Your task to perform on an android device: turn smart compose on in the gmail app Image 0: 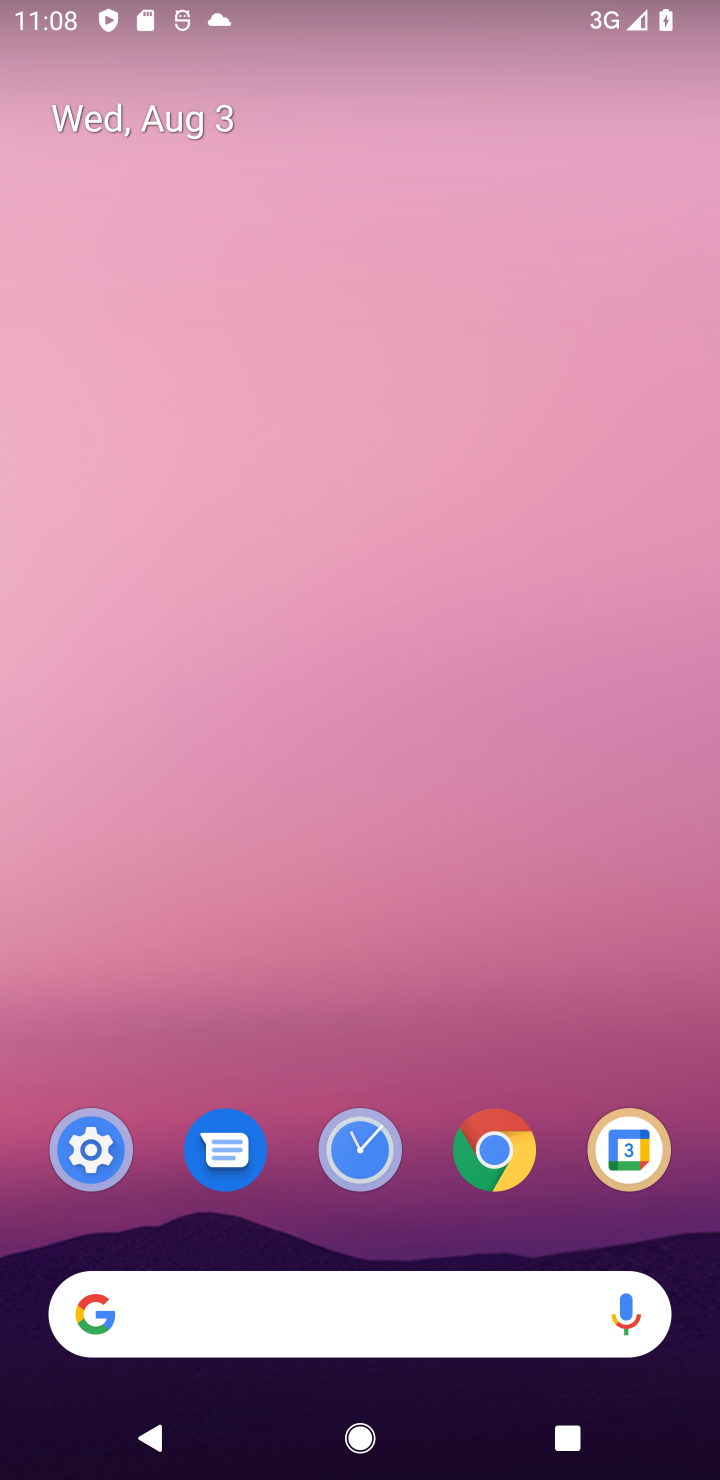
Step 0: drag from (538, 1076) to (494, 287)
Your task to perform on an android device: turn smart compose on in the gmail app Image 1: 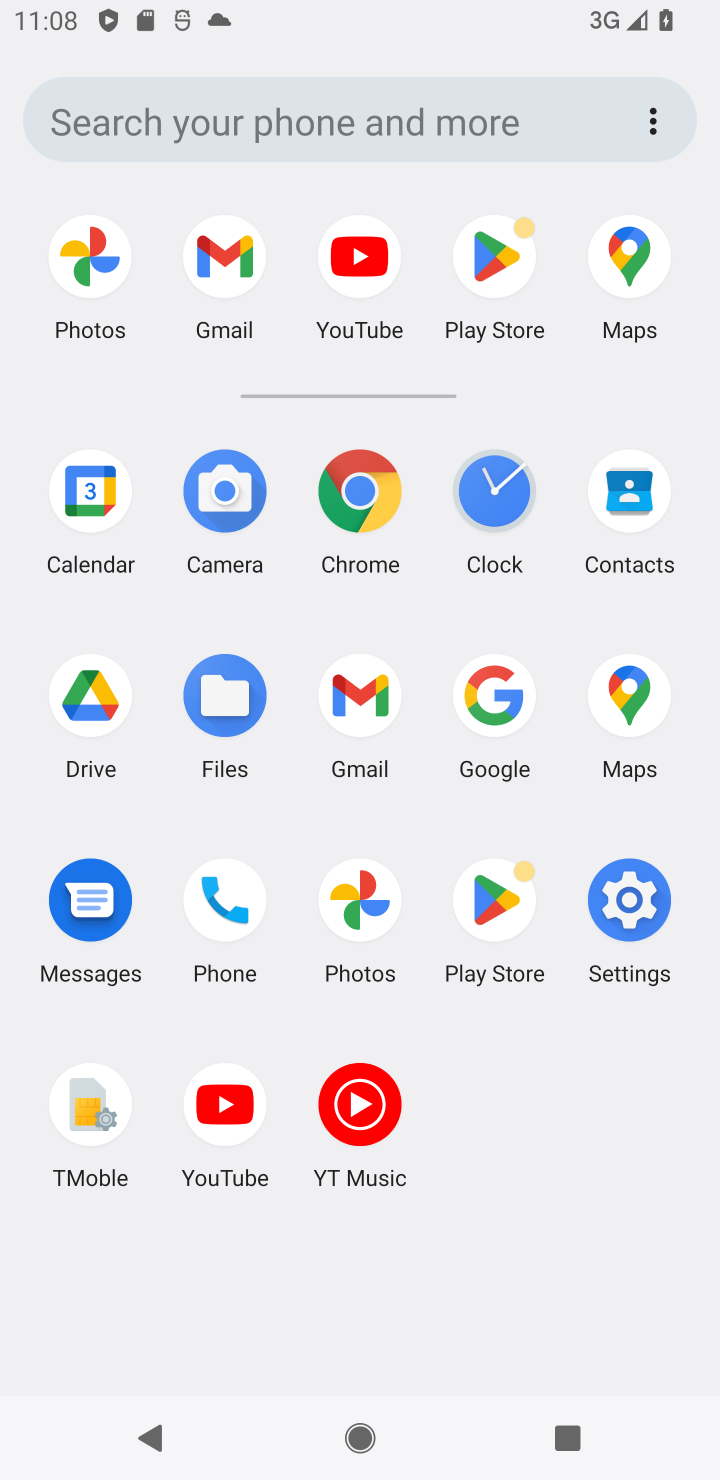
Step 1: click (364, 704)
Your task to perform on an android device: turn smart compose on in the gmail app Image 2: 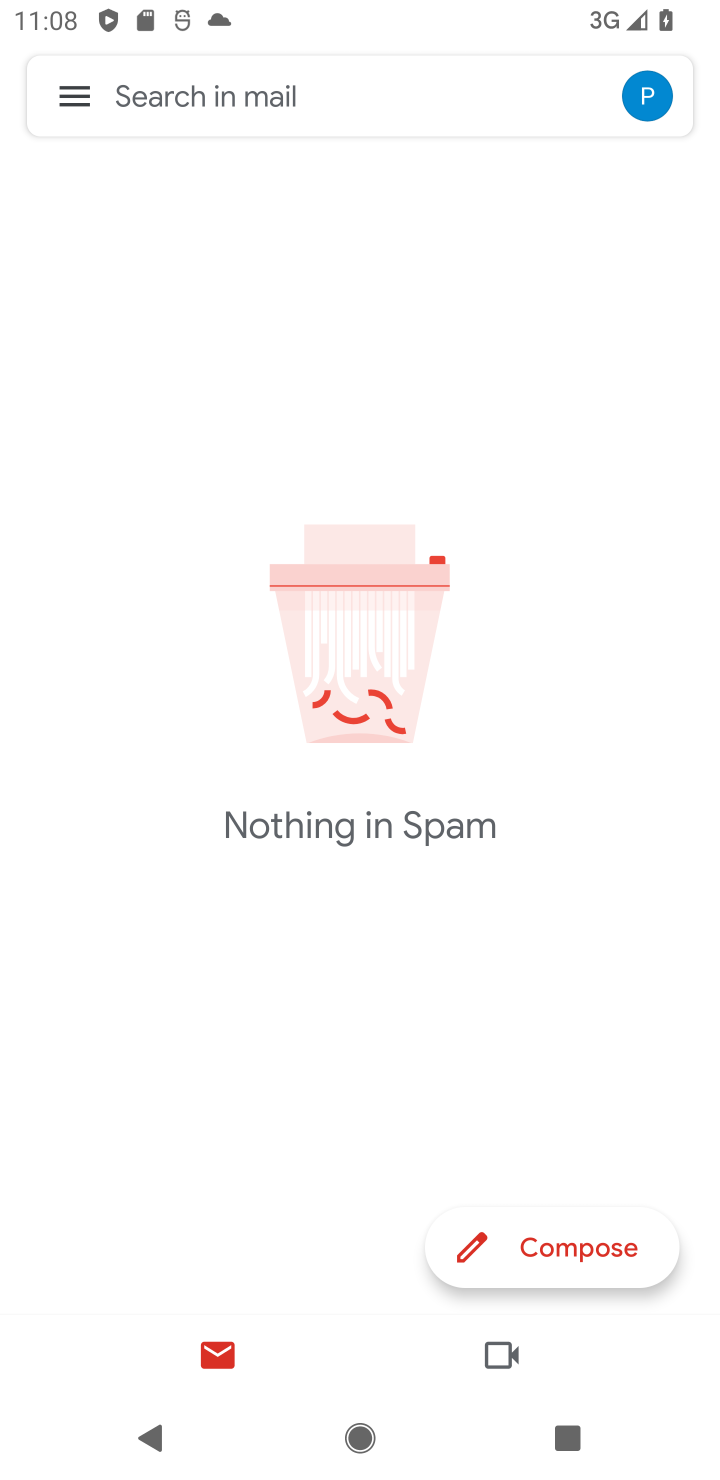
Step 2: click (73, 104)
Your task to perform on an android device: turn smart compose on in the gmail app Image 3: 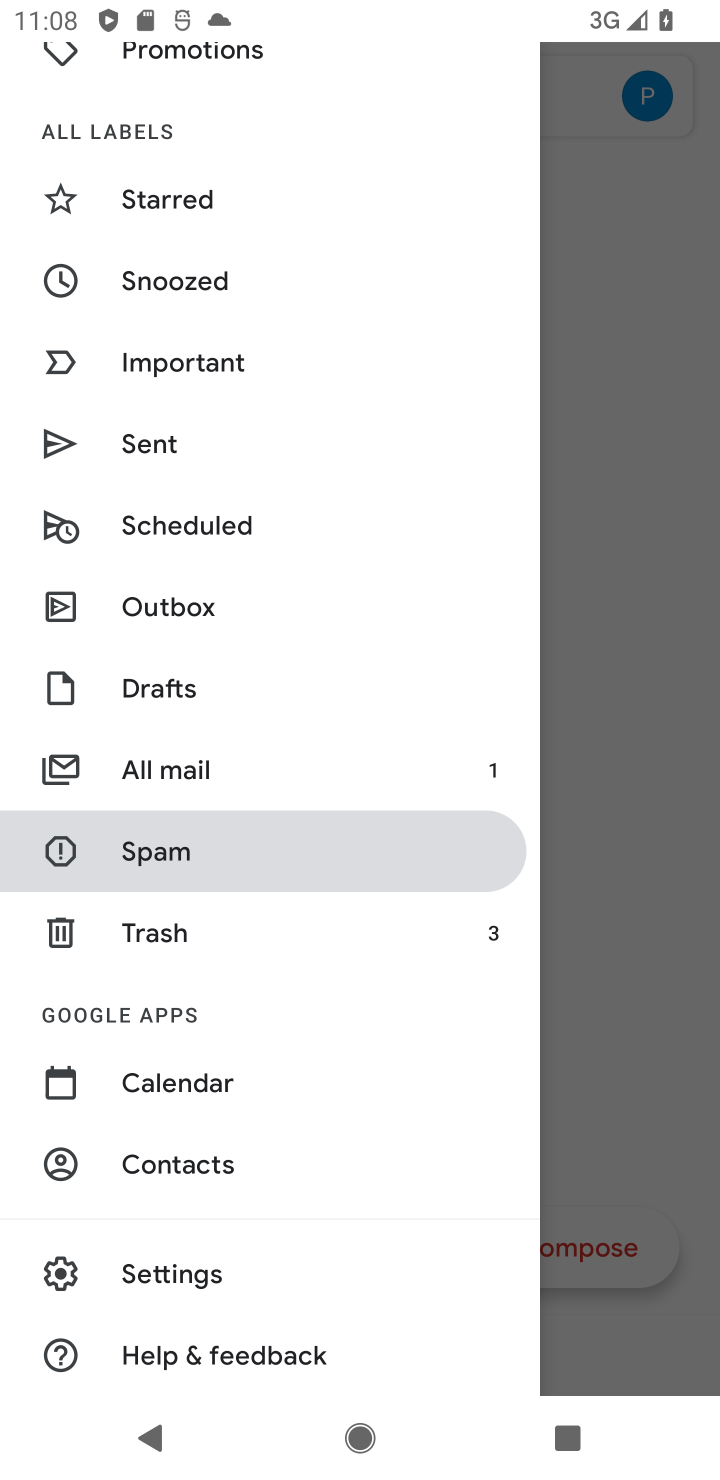
Step 3: drag from (360, 464) to (371, 799)
Your task to perform on an android device: turn smart compose on in the gmail app Image 4: 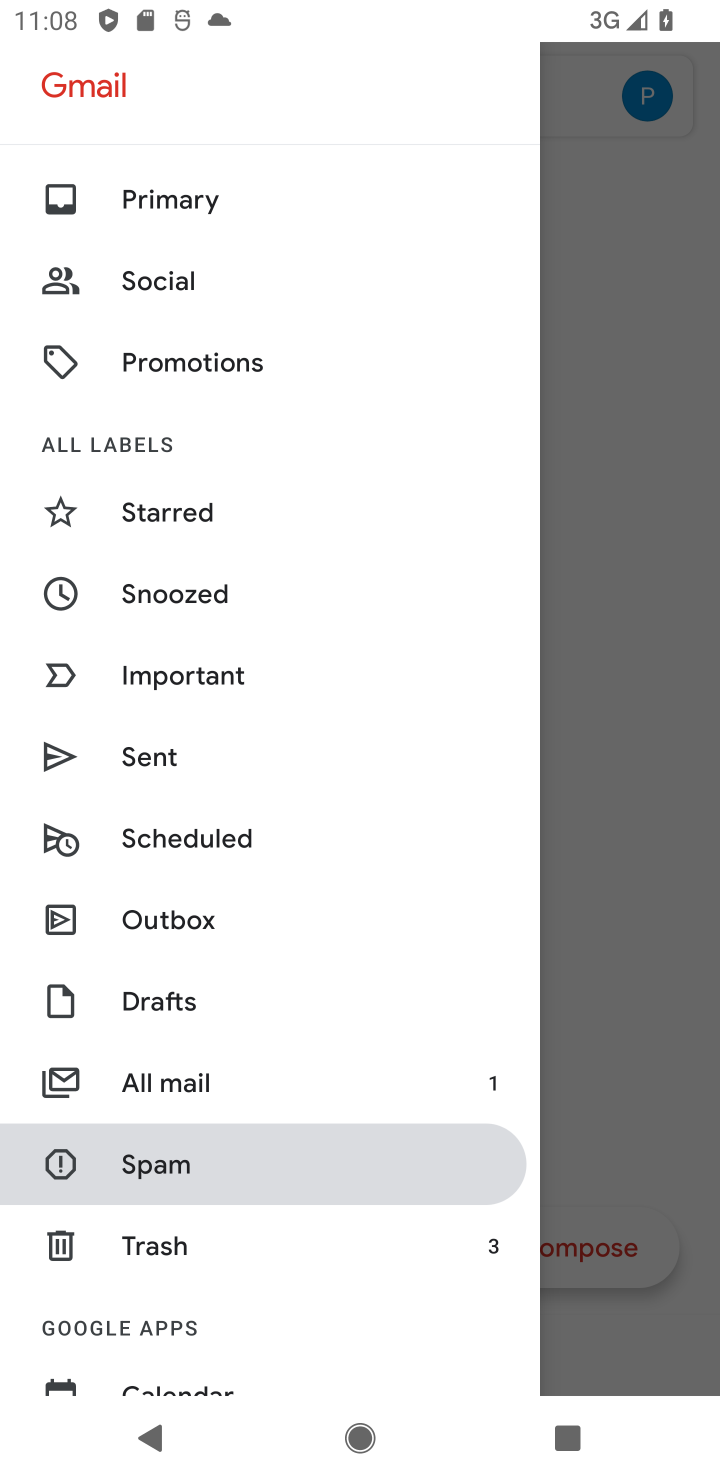
Step 4: drag from (377, 289) to (393, 769)
Your task to perform on an android device: turn smart compose on in the gmail app Image 5: 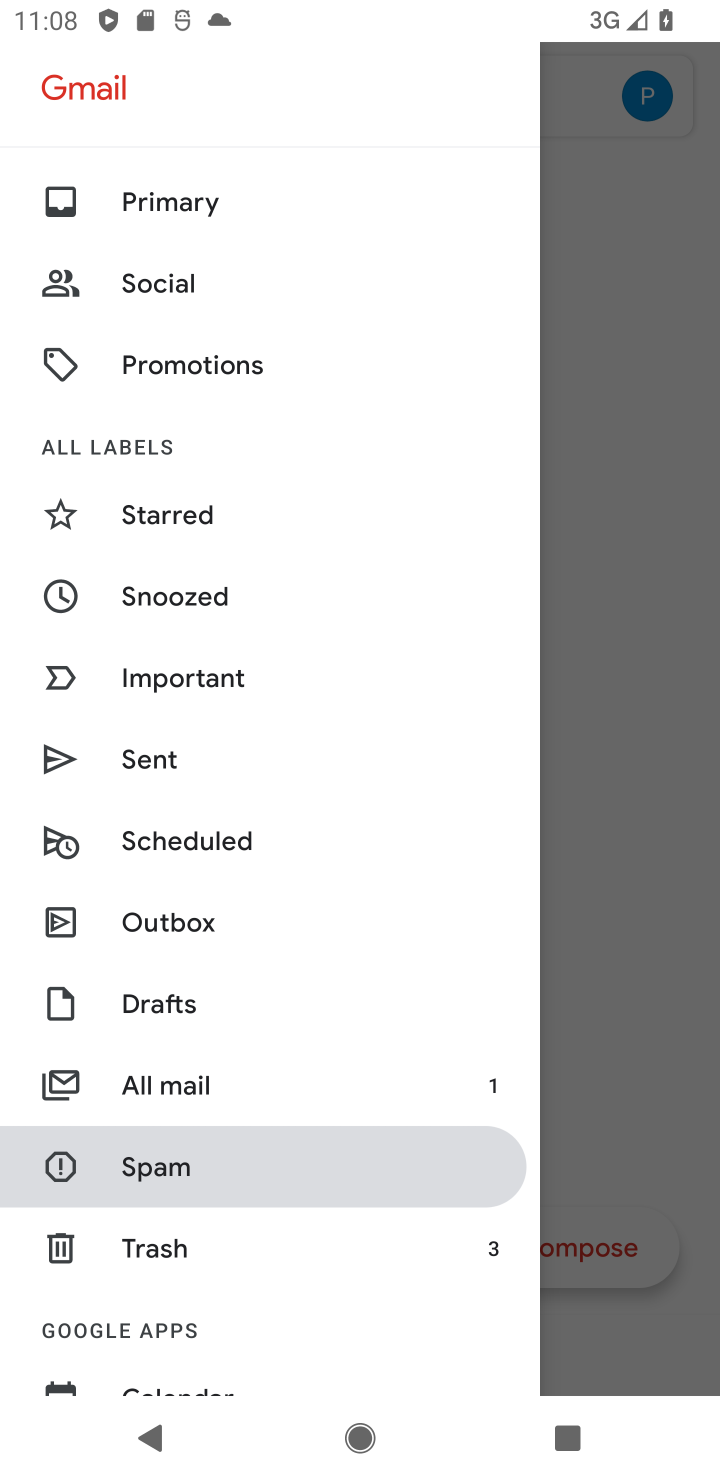
Step 5: drag from (366, 1023) to (377, 782)
Your task to perform on an android device: turn smart compose on in the gmail app Image 6: 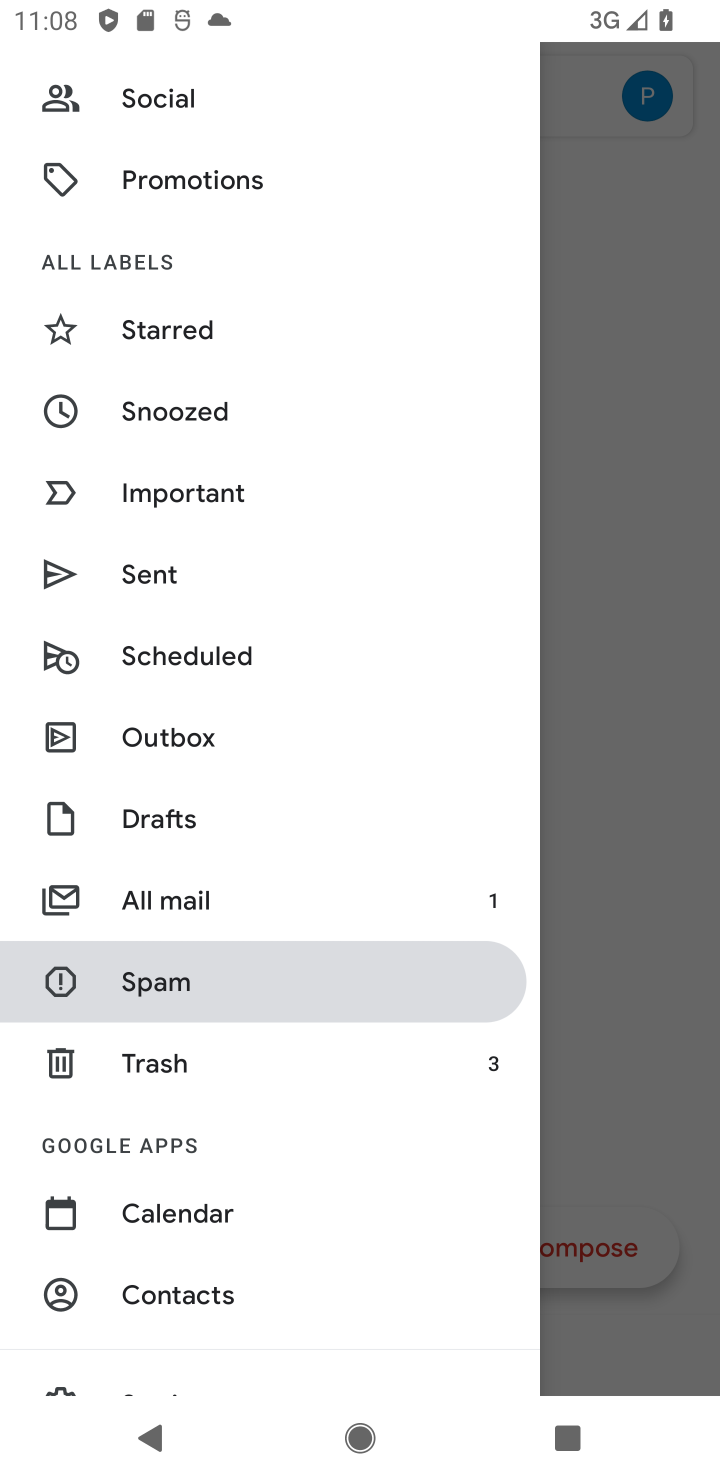
Step 6: drag from (386, 1155) to (402, 686)
Your task to perform on an android device: turn smart compose on in the gmail app Image 7: 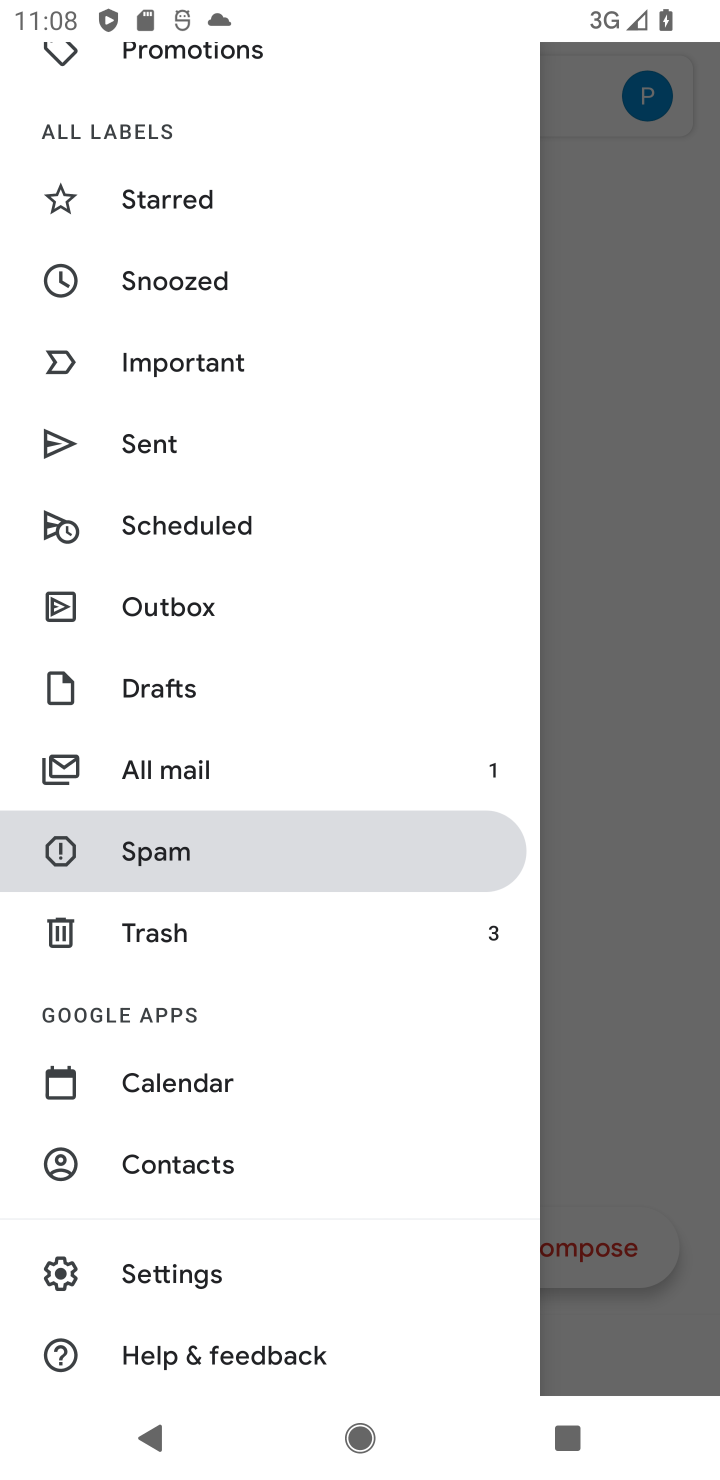
Step 7: click (252, 1264)
Your task to perform on an android device: turn smart compose on in the gmail app Image 8: 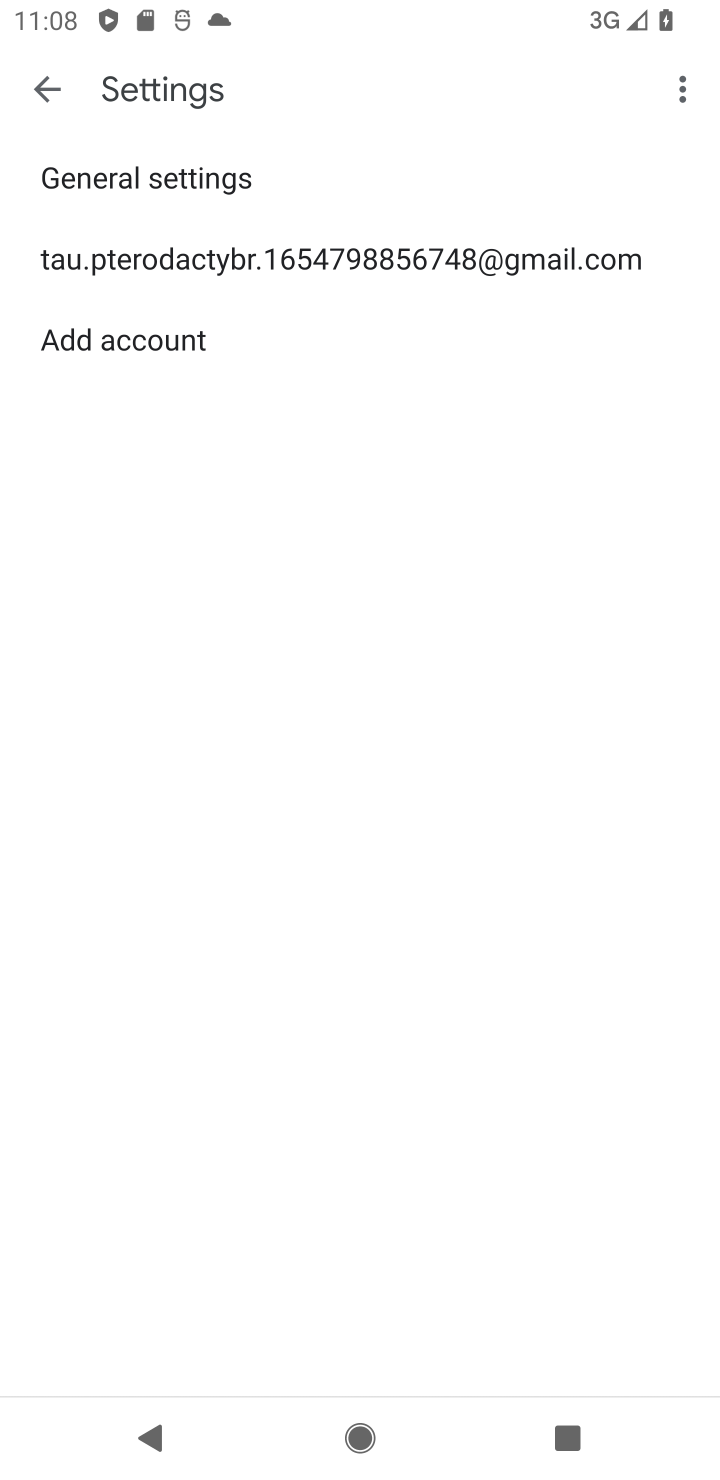
Step 8: click (281, 245)
Your task to perform on an android device: turn smart compose on in the gmail app Image 9: 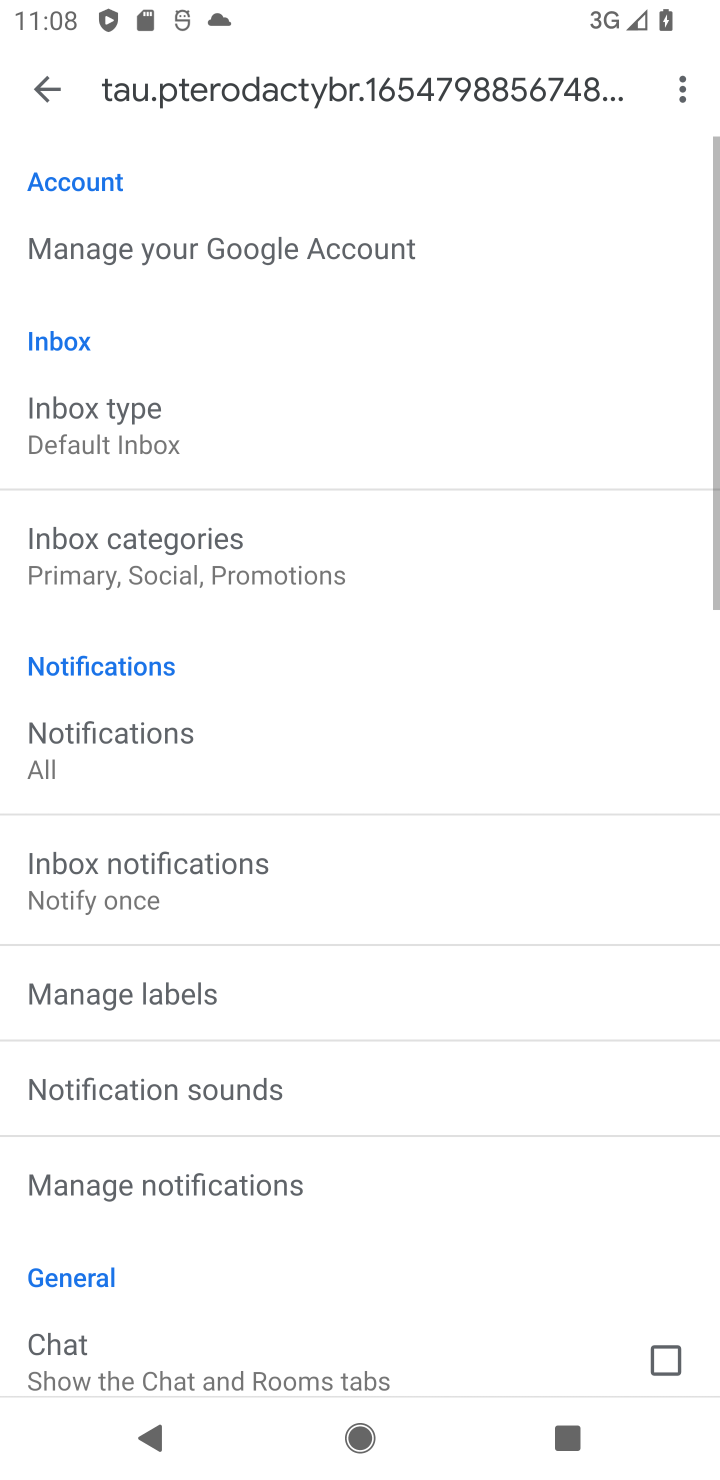
Step 9: task complete